Your task to perform on an android device: turn on showing notifications on the lock screen Image 0: 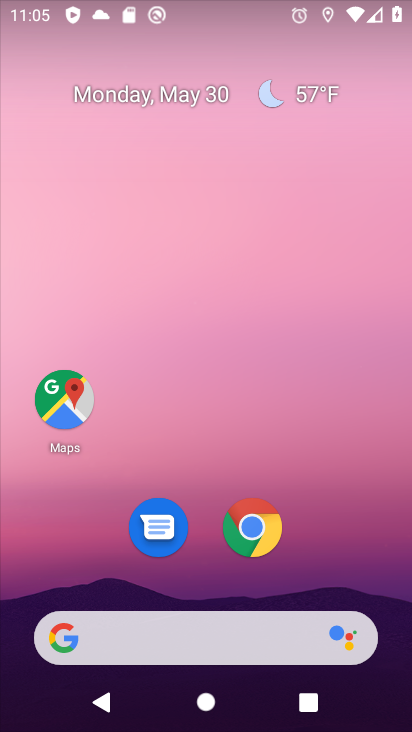
Step 0: drag from (319, 556) to (307, 192)
Your task to perform on an android device: turn on showing notifications on the lock screen Image 1: 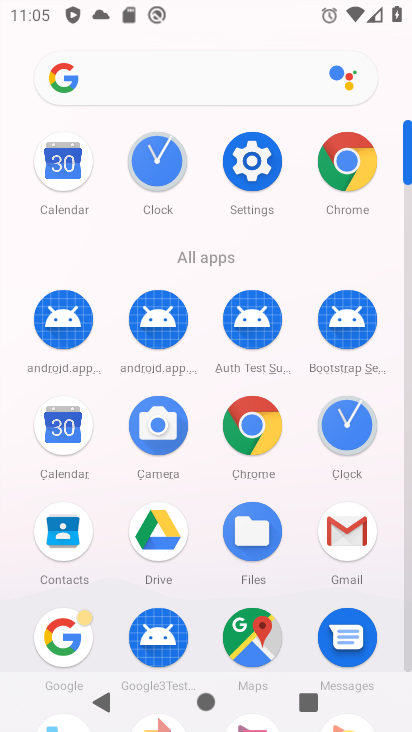
Step 1: click (261, 184)
Your task to perform on an android device: turn on showing notifications on the lock screen Image 2: 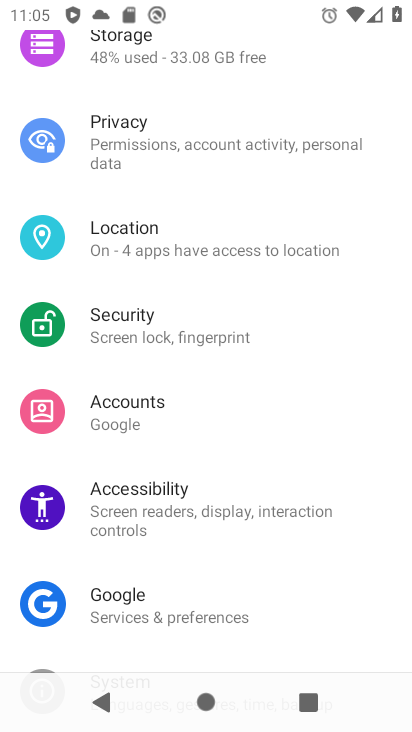
Step 2: drag from (255, 207) to (287, 524)
Your task to perform on an android device: turn on showing notifications on the lock screen Image 3: 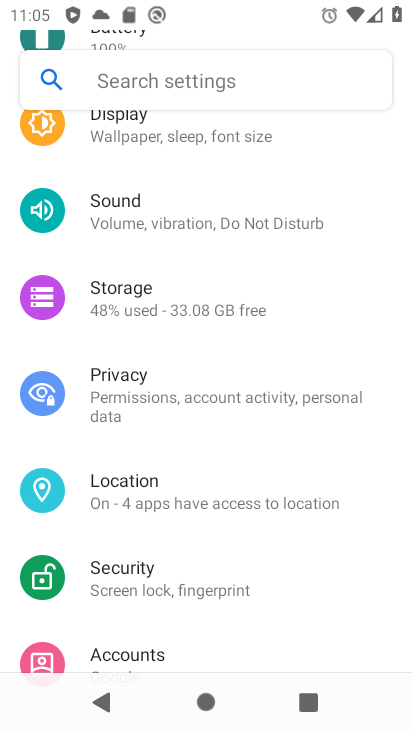
Step 3: drag from (264, 185) to (258, 604)
Your task to perform on an android device: turn on showing notifications on the lock screen Image 4: 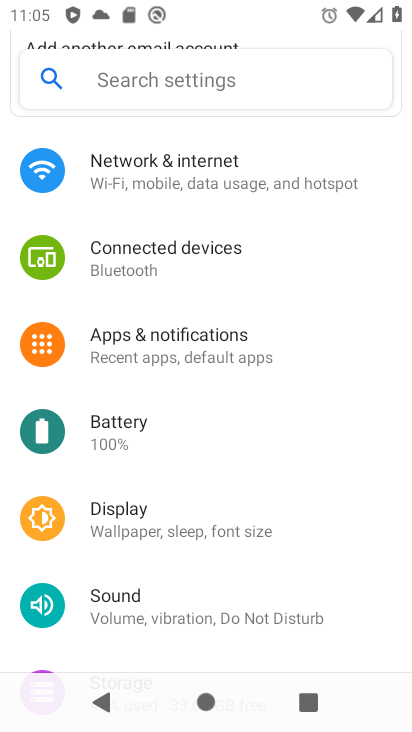
Step 4: click (214, 357)
Your task to perform on an android device: turn on showing notifications on the lock screen Image 5: 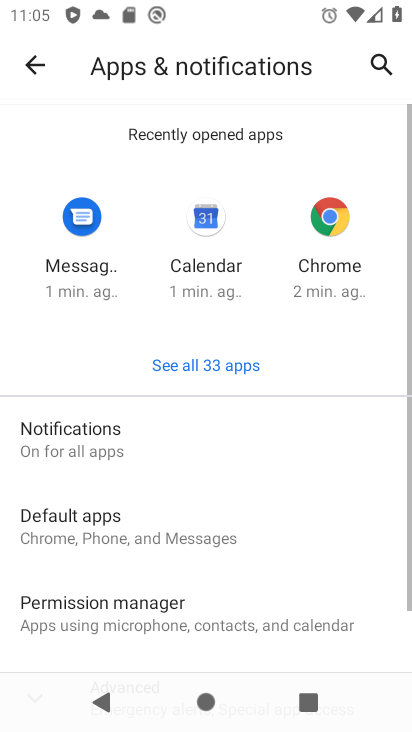
Step 5: click (95, 446)
Your task to perform on an android device: turn on showing notifications on the lock screen Image 6: 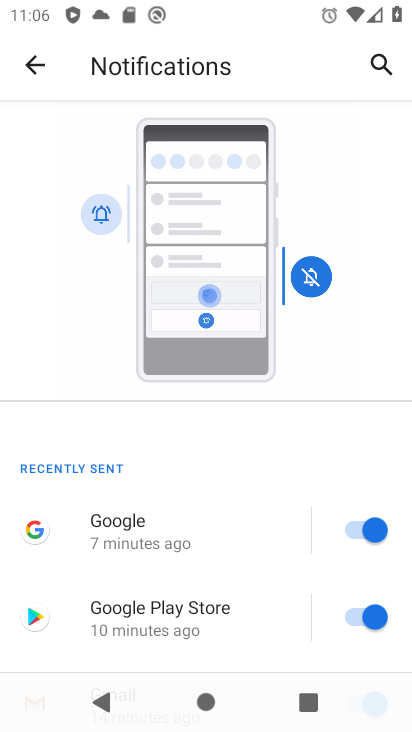
Step 6: drag from (306, 558) to (356, 212)
Your task to perform on an android device: turn on showing notifications on the lock screen Image 7: 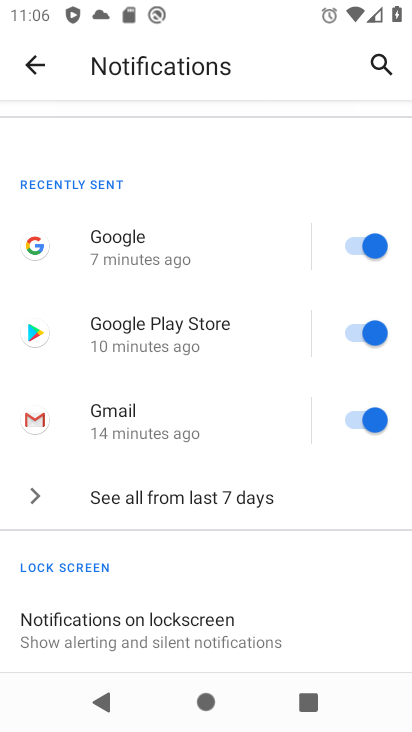
Step 7: drag from (266, 612) to (247, 390)
Your task to perform on an android device: turn on showing notifications on the lock screen Image 8: 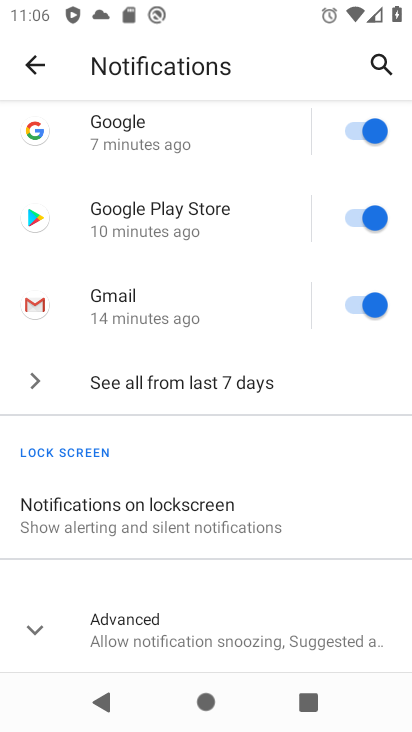
Step 8: click (217, 517)
Your task to perform on an android device: turn on showing notifications on the lock screen Image 9: 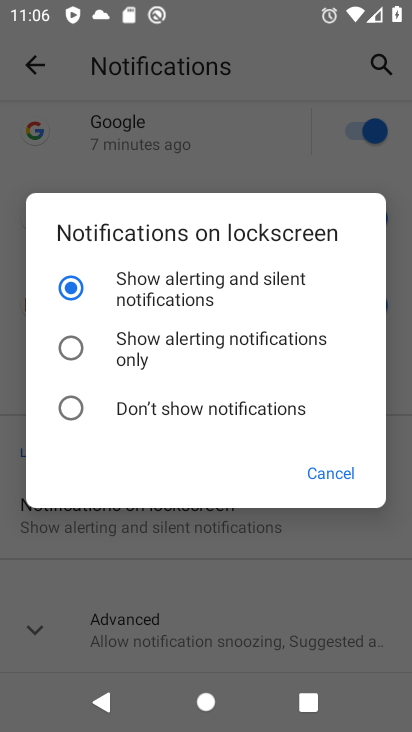
Step 9: task complete